Your task to perform on an android device: Empty the shopping cart on ebay.com. Search for "duracell triple a" on ebay.com, select the first entry, add it to the cart, then select checkout. Image 0: 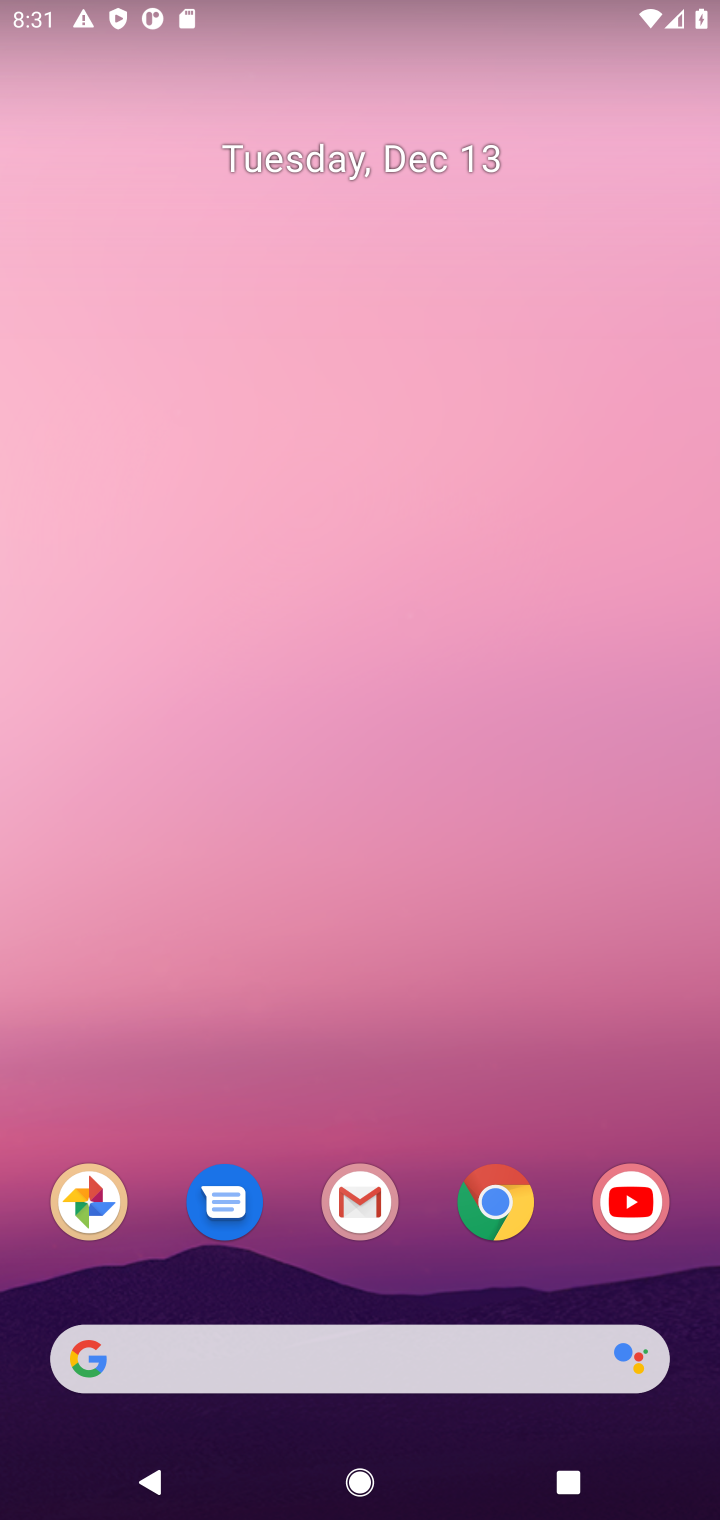
Step 0: click (502, 1205)
Your task to perform on an android device: Empty the shopping cart on ebay.com. Search for "duracell triple a" on ebay.com, select the first entry, add it to the cart, then select checkout. Image 1: 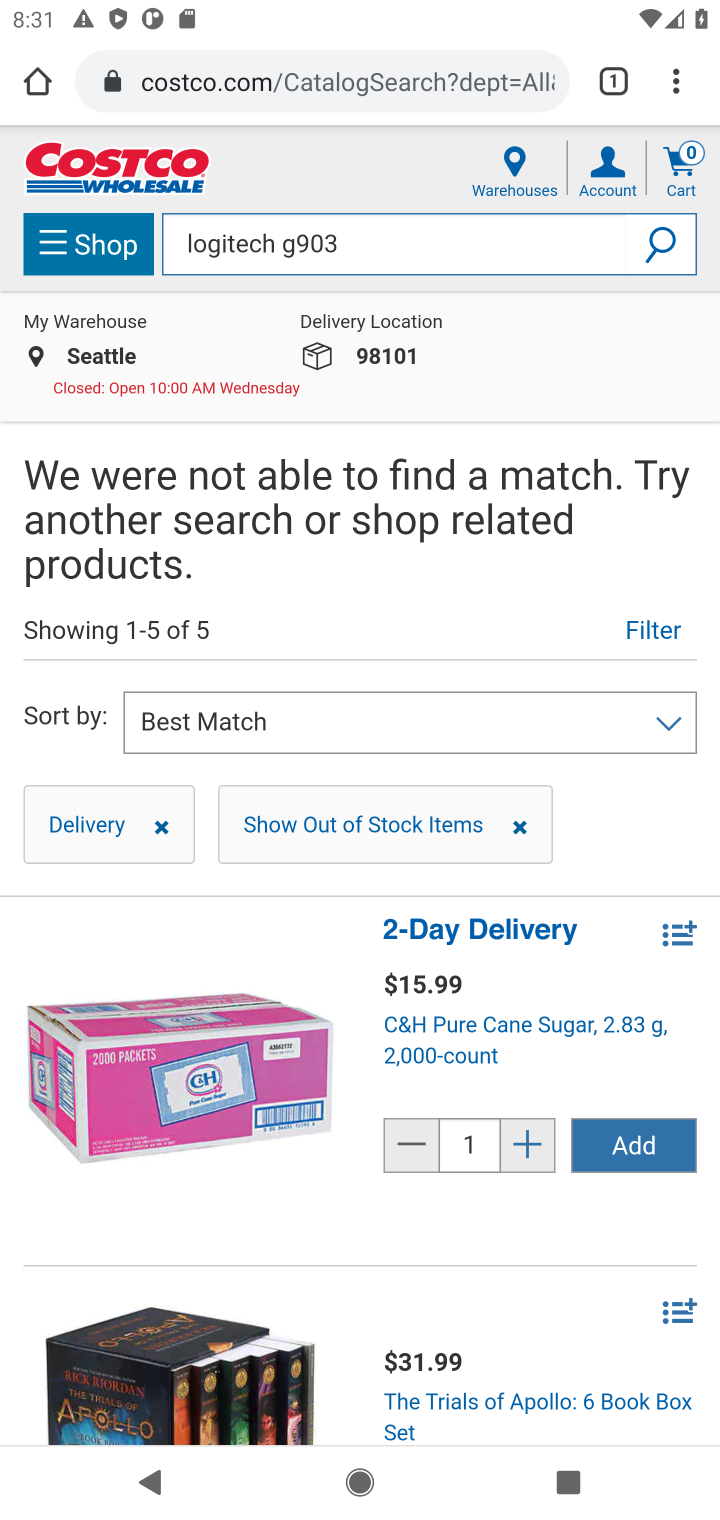
Step 1: click (373, 77)
Your task to perform on an android device: Empty the shopping cart on ebay.com. Search for "duracell triple a" on ebay.com, select the first entry, add it to the cart, then select checkout. Image 2: 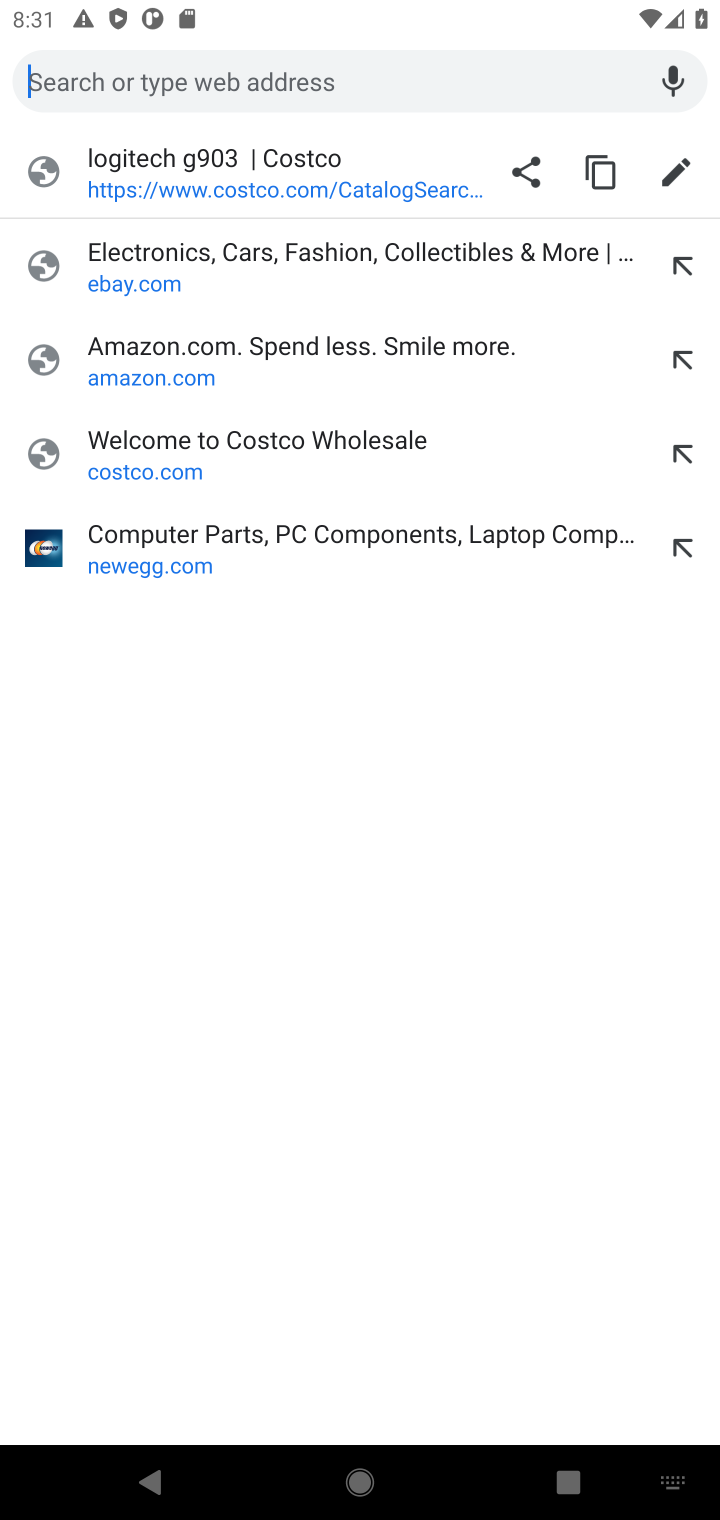
Step 2: click (166, 288)
Your task to perform on an android device: Empty the shopping cart on ebay.com. Search for "duracell triple a" on ebay.com, select the first entry, add it to the cart, then select checkout. Image 3: 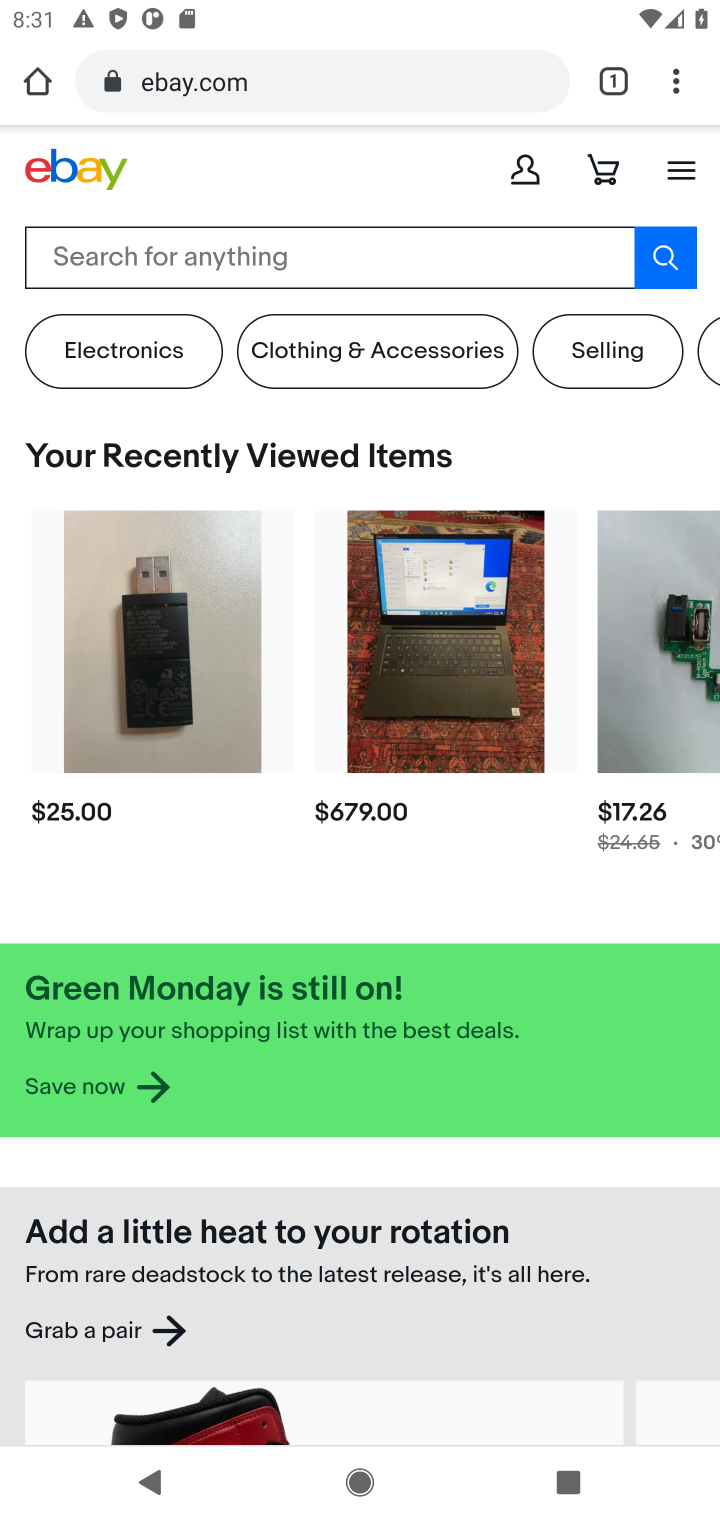
Step 3: click (611, 169)
Your task to perform on an android device: Empty the shopping cart on ebay.com. Search for "duracell triple a" on ebay.com, select the first entry, add it to the cart, then select checkout. Image 4: 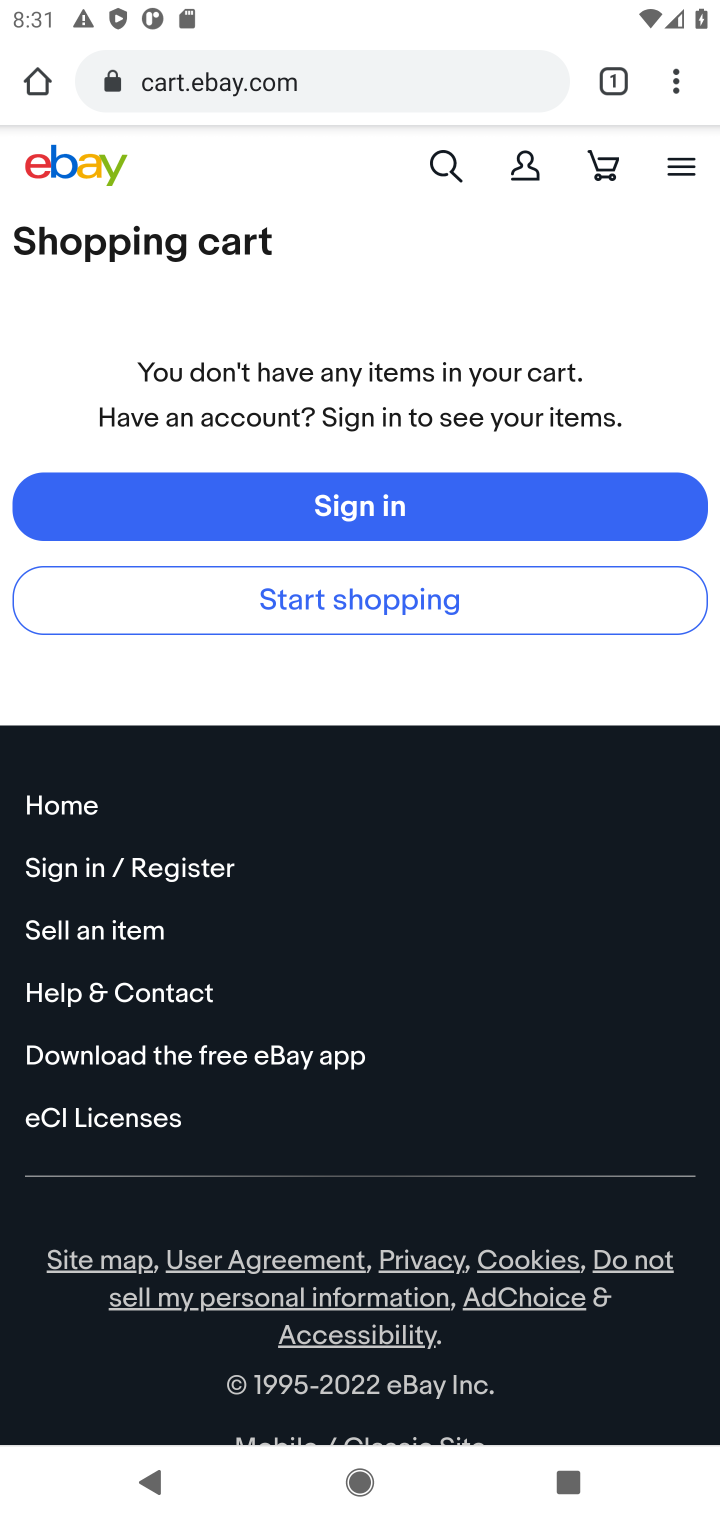
Step 4: click (440, 162)
Your task to perform on an android device: Empty the shopping cart on ebay.com. Search for "duracell triple a" on ebay.com, select the first entry, add it to the cart, then select checkout. Image 5: 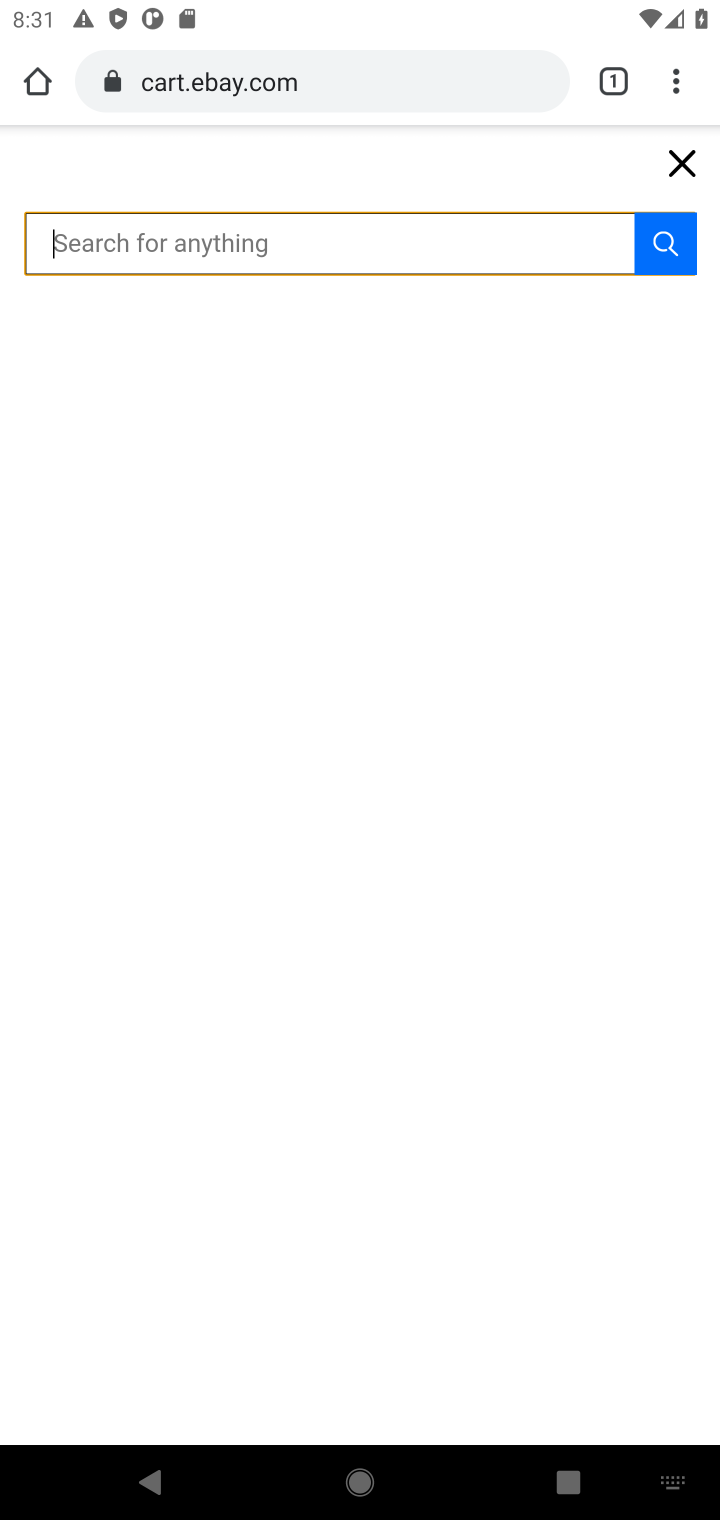
Step 5: type "duracell triple a"
Your task to perform on an android device: Empty the shopping cart on ebay.com. Search for "duracell triple a" on ebay.com, select the first entry, add it to the cart, then select checkout. Image 6: 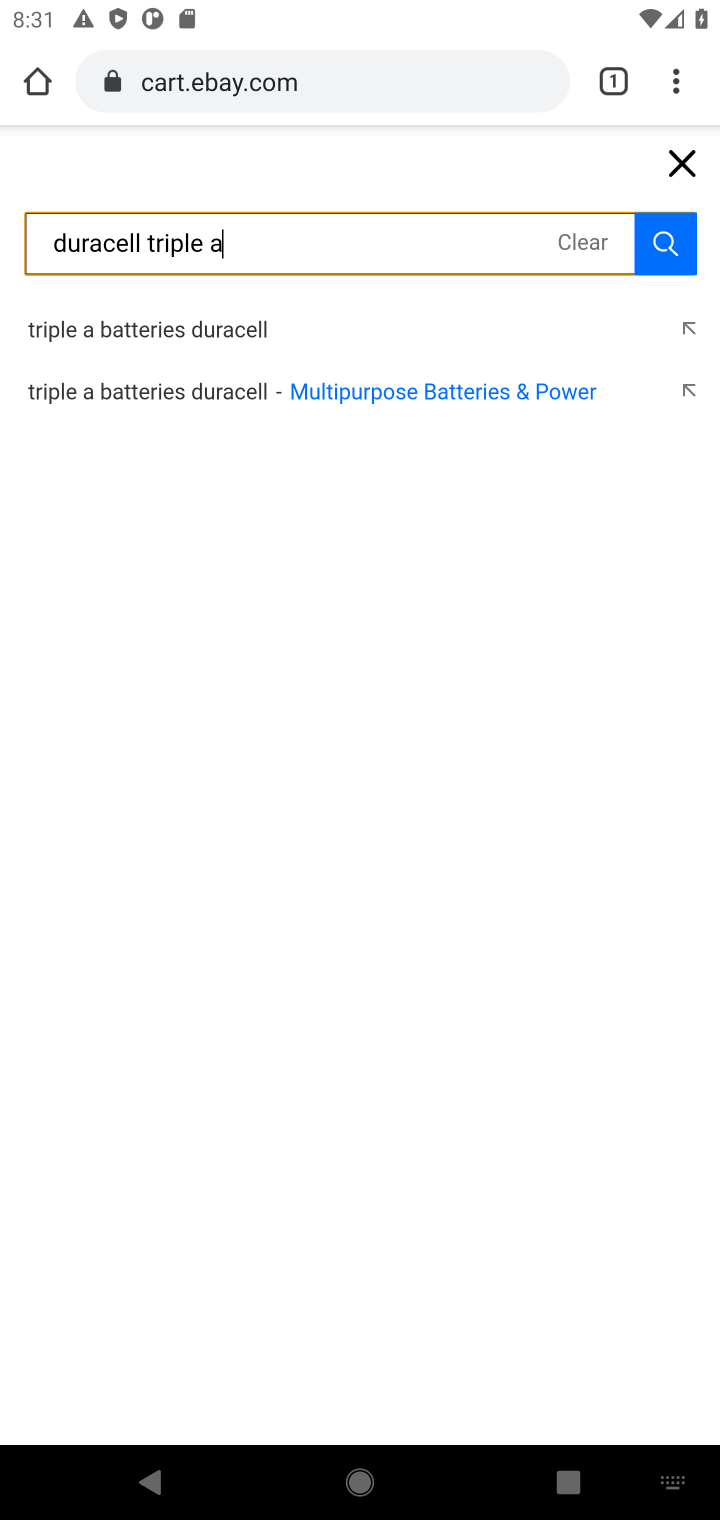
Step 6: click (671, 242)
Your task to perform on an android device: Empty the shopping cart on ebay.com. Search for "duracell triple a" on ebay.com, select the first entry, add it to the cart, then select checkout. Image 7: 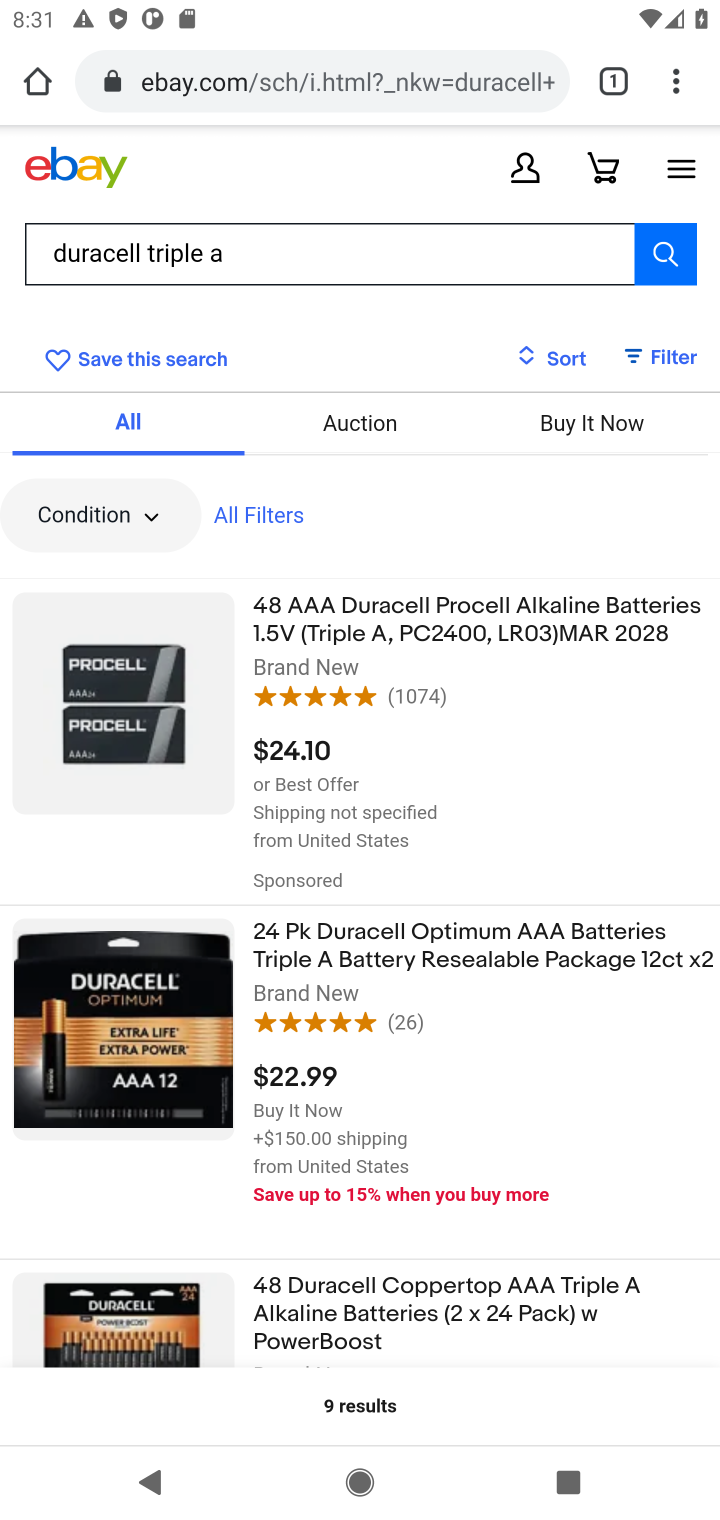
Step 7: click (343, 625)
Your task to perform on an android device: Empty the shopping cart on ebay.com. Search for "duracell triple a" on ebay.com, select the first entry, add it to the cart, then select checkout. Image 8: 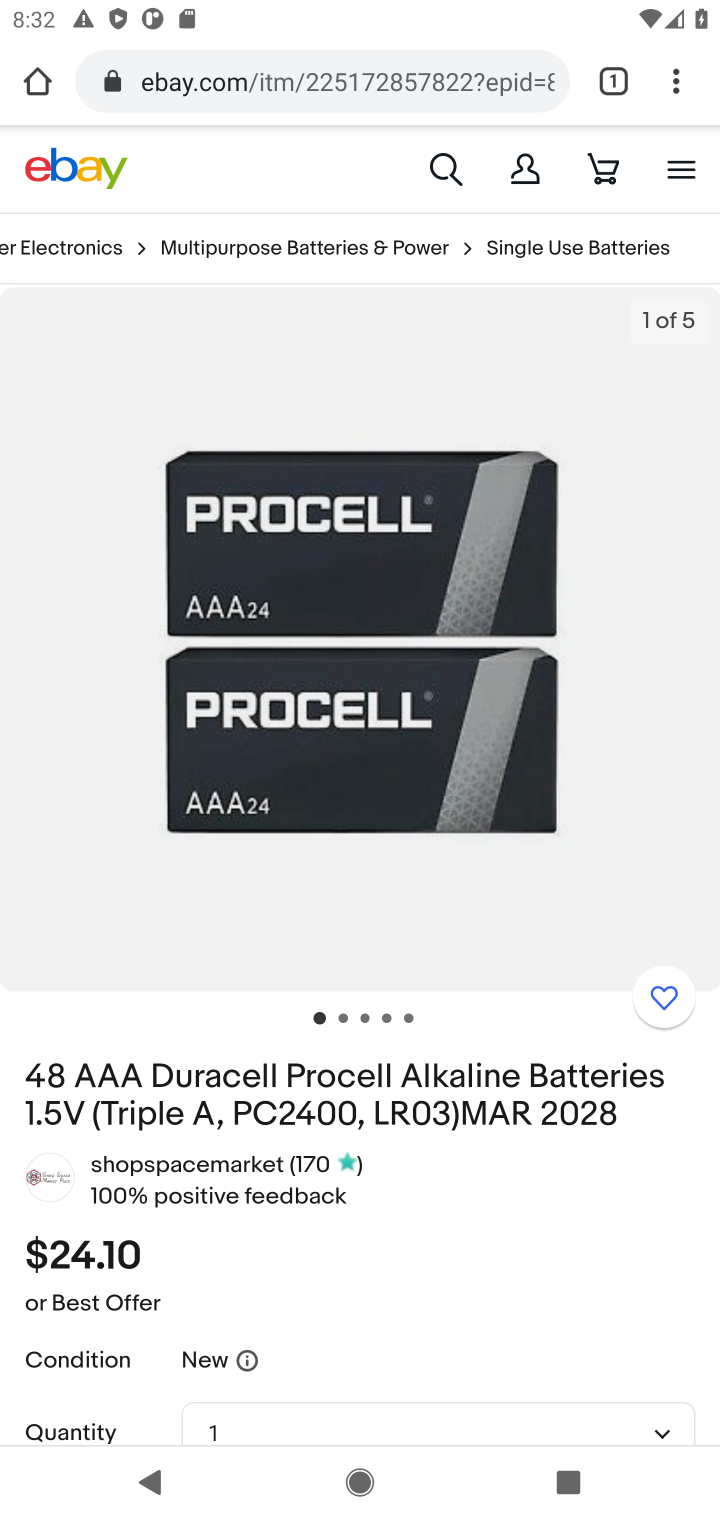
Step 8: drag from (487, 1276) to (525, 841)
Your task to perform on an android device: Empty the shopping cart on ebay.com. Search for "duracell triple a" on ebay.com, select the first entry, add it to the cart, then select checkout. Image 9: 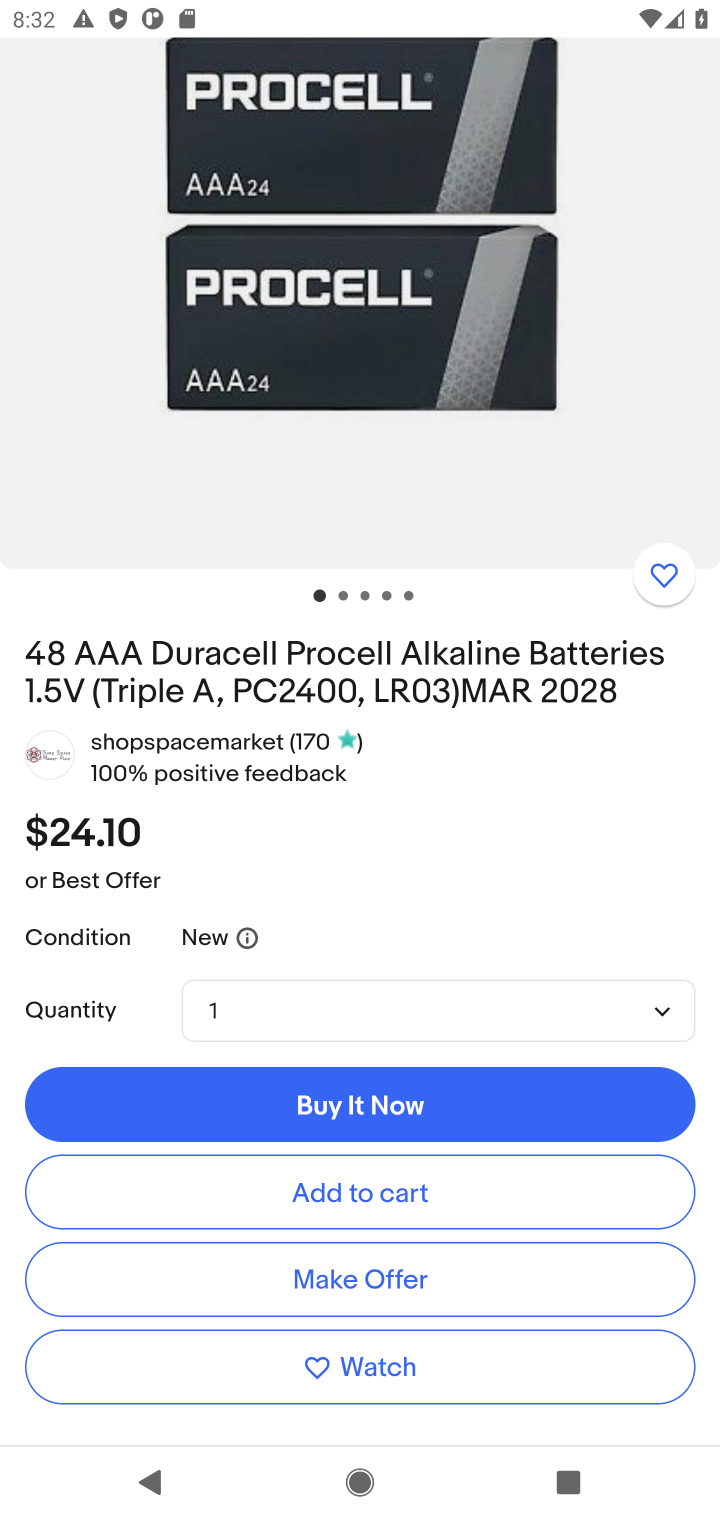
Step 9: click (455, 1200)
Your task to perform on an android device: Empty the shopping cart on ebay.com. Search for "duracell triple a" on ebay.com, select the first entry, add it to the cart, then select checkout. Image 10: 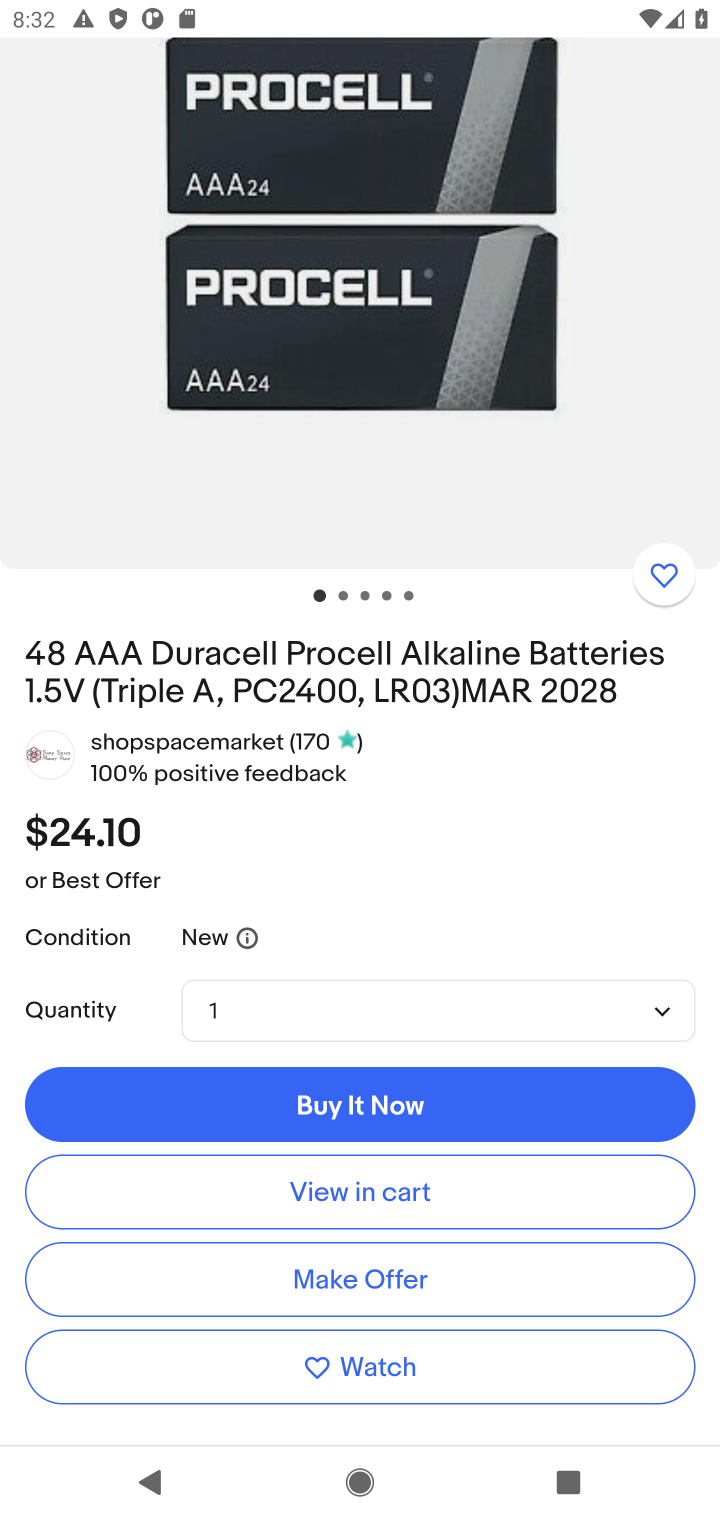
Step 10: drag from (574, 447) to (481, 886)
Your task to perform on an android device: Empty the shopping cart on ebay.com. Search for "duracell triple a" on ebay.com, select the first entry, add it to the cart, then select checkout. Image 11: 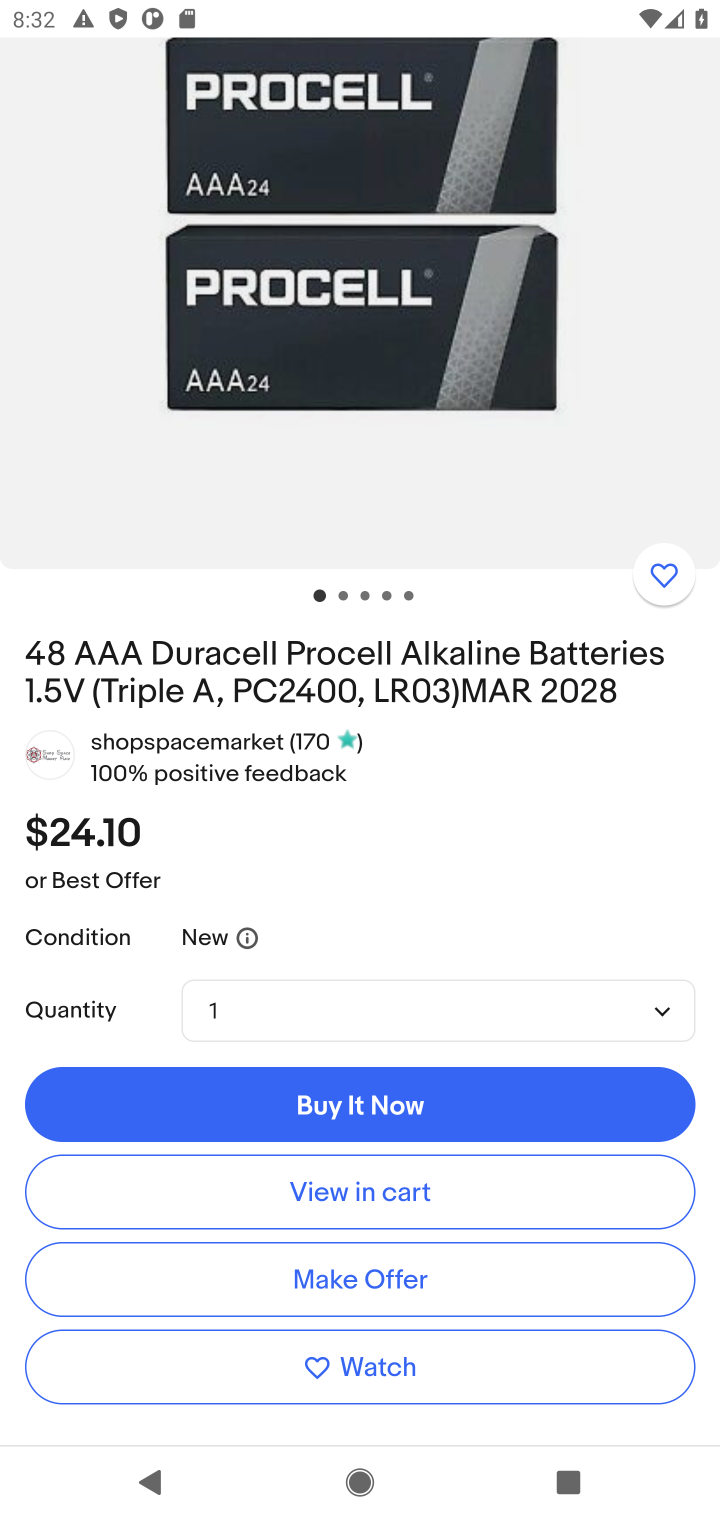
Step 11: drag from (526, 442) to (449, 957)
Your task to perform on an android device: Empty the shopping cart on ebay.com. Search for "duracell triple a" on ebay.com, select the first entry, add it to the cart, then select checkout. Image 12: 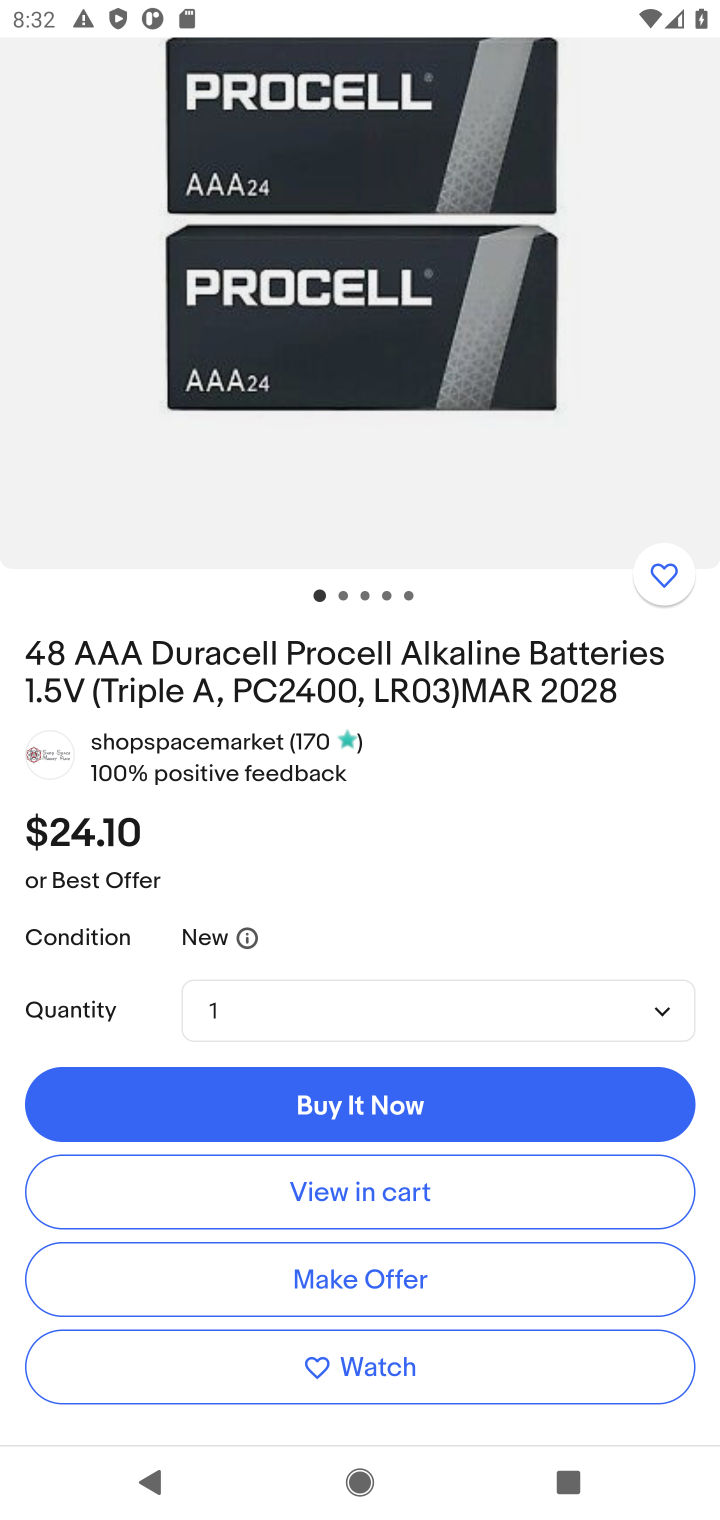
Step 12: drag from (498, 892) to (536, 496)
Your task to perform on an android device: Empty the shopping cart on ebay.com. Search for "duracell triple a" on ebay.com, select the first entry, add it to the cart, then select checkout. Image 13: 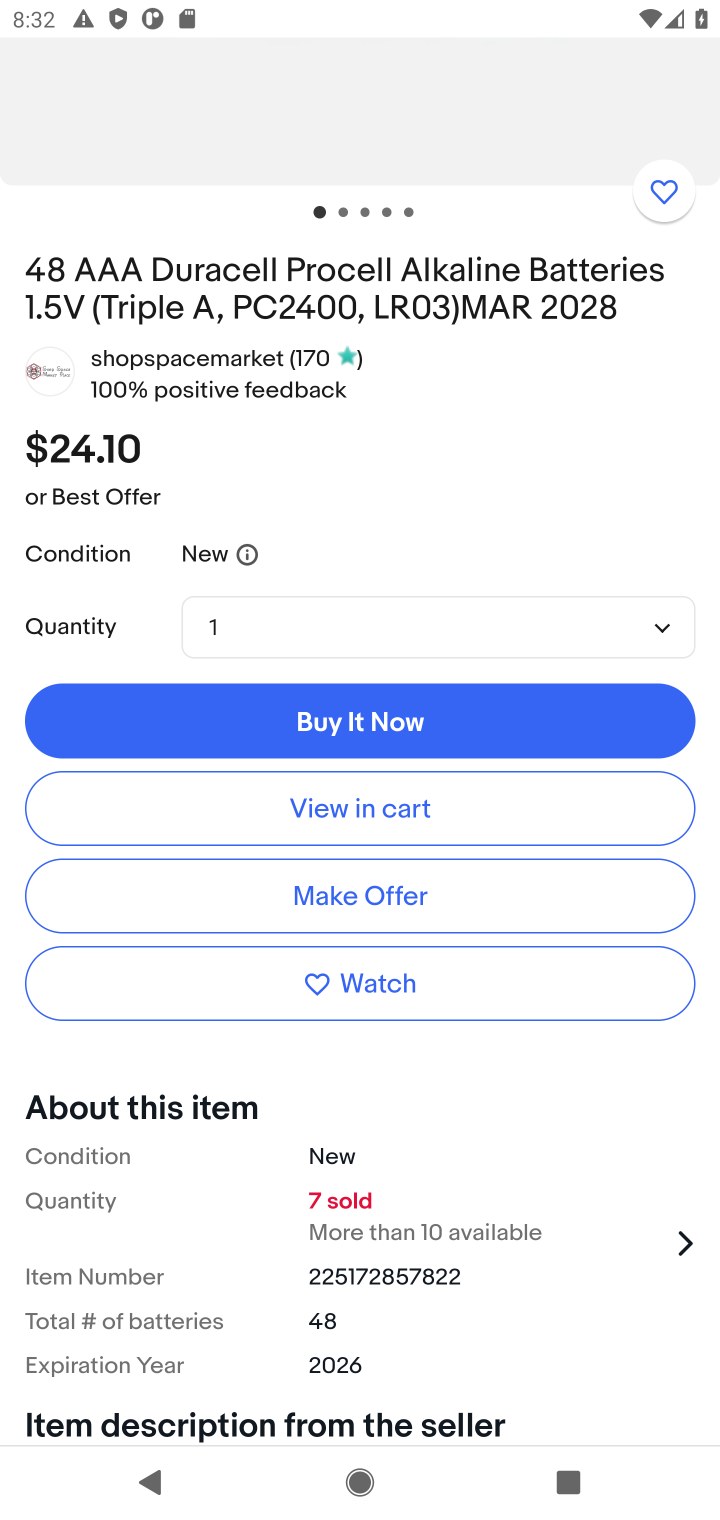
Step 13: click (392, 815)
Your task to perform on an android device: Empty the shopping cart on ebay.com. Search for "duracell triple a" on ebay.com, select the first entry, add it to the cart, then select checkout. Image 14: 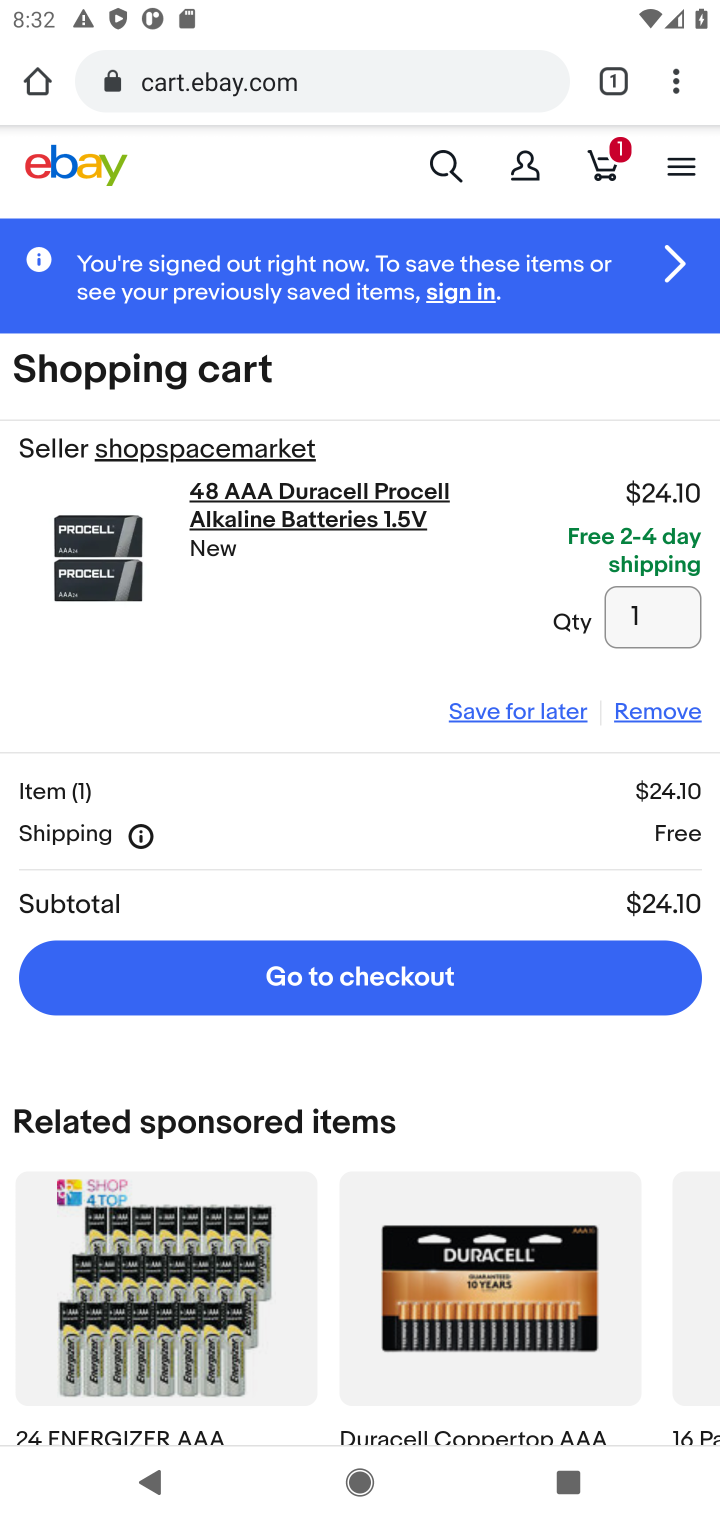
Step 14: click (444, 980)
Your task to perform on an android device: Empty the shopping cart on ebay.com. Search for "duracell triple a" on ebay.com, select the first entry, add it to the cart, then select checkout. Image 15: 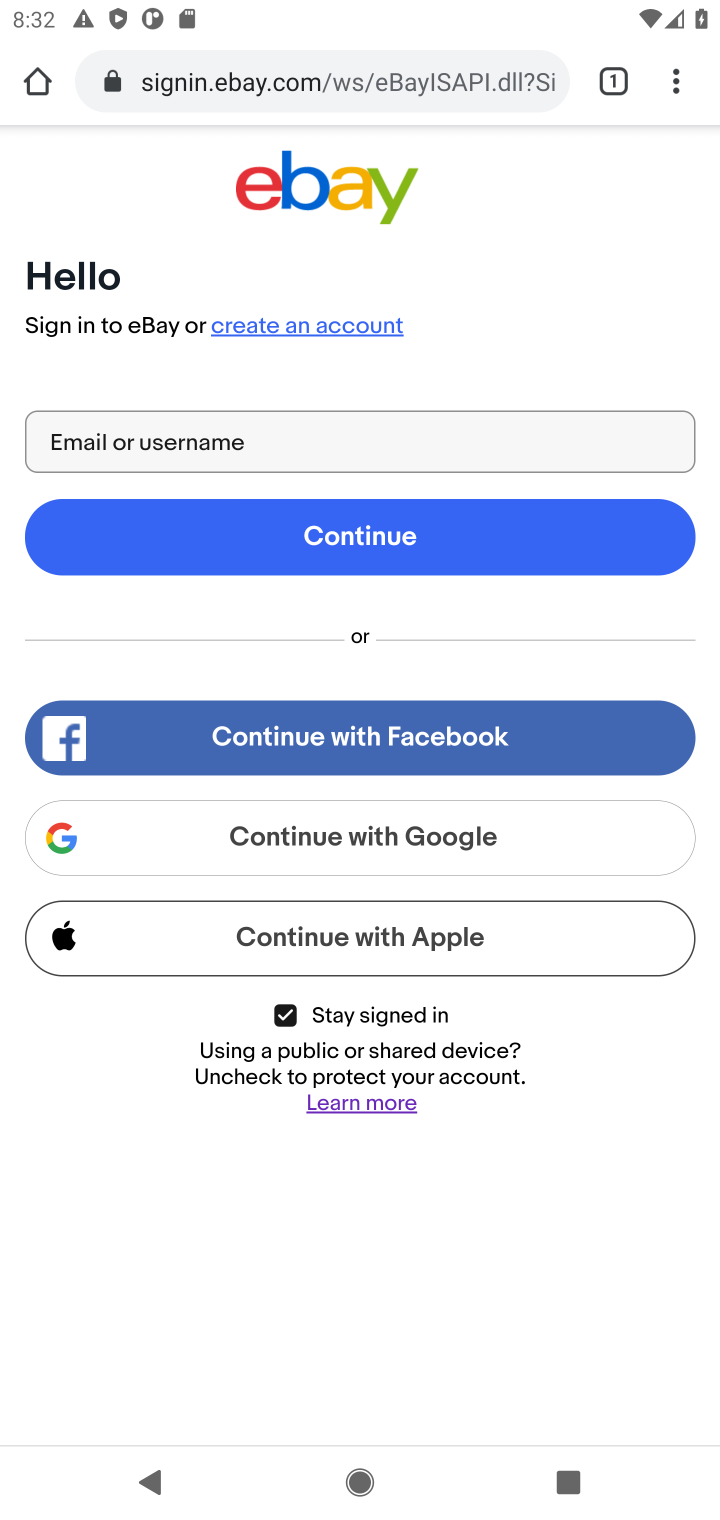
Step 15: task complete